Your task to perform on an android device: delete the emails in spam in the gmail app Image 0: 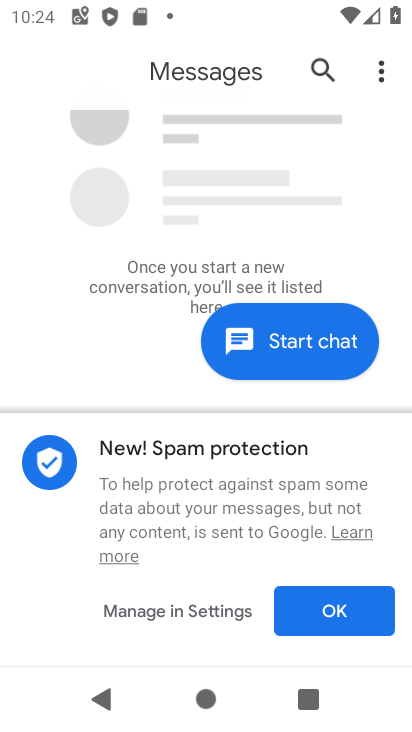
Step 0: press back button
Your task to perform on an android device: delete the emails in spam in the gmail app Image 1: 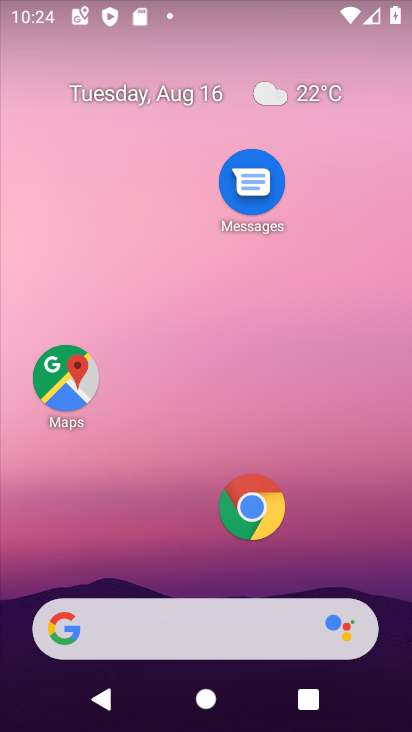
Step 1: drag from (139, 553) to (214, 29)
Your task to perform on an android device: delete the emails in spam in the gmail app Image 2: 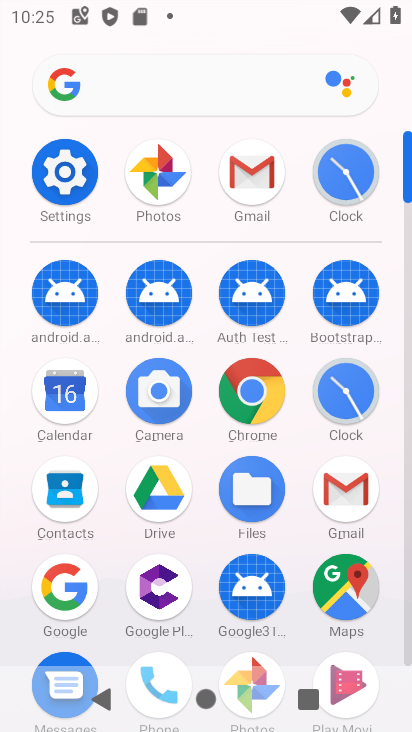
Step 2: click (242, 172)
Your task to perform on an android device: delete the emails in spam in the gmail app Image 3: 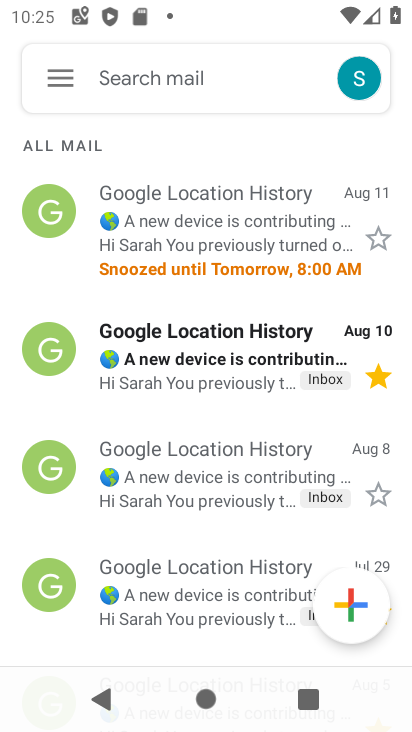
Step 3: click (59, 81)
Your task to perform on an android device: delete the emails in spam in the gmail app Image 4: 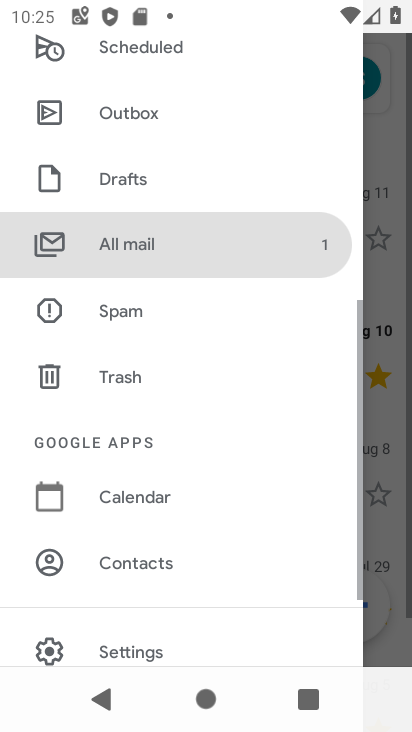
Step 4: click (119, 303)
Your task to perform on an android device: delete the emails in spam in the gmail app Image 5: 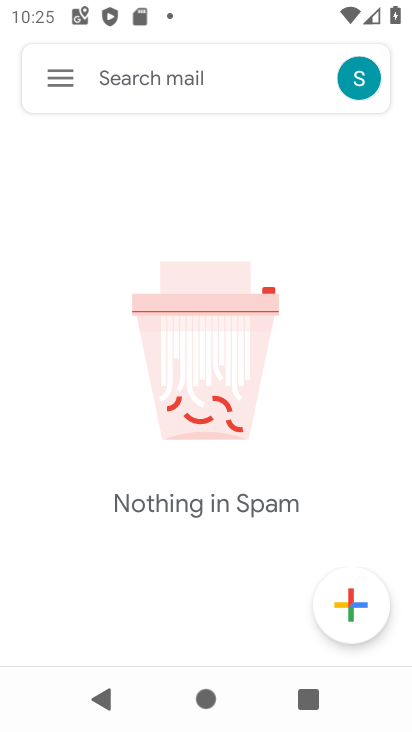
Step 5: task complete